Your task to perform on an android device: Open the phone app and click the voicemail tab. Image 0: 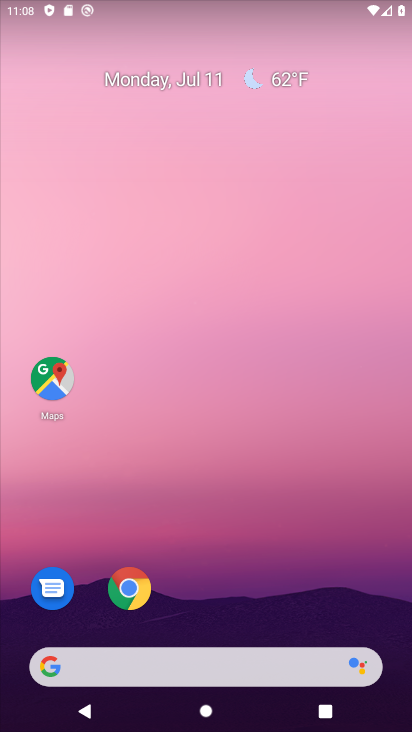
Step 0: drag from (225, 594) to (155, 285)
Your task to perform on an android device: Open the phone app and click the voicemail tab. Image 1: 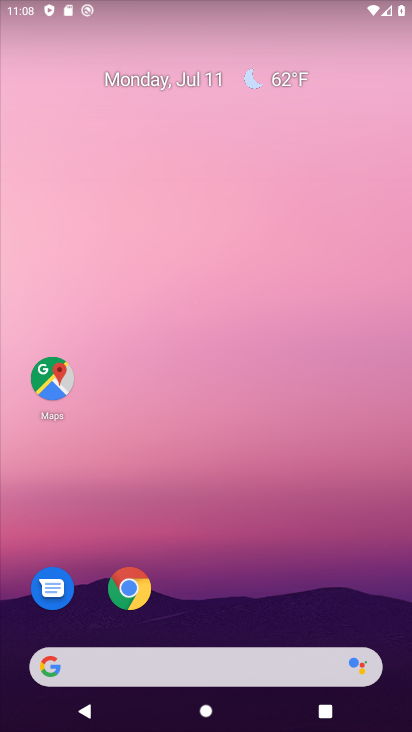
Step 1: drag from (205, 291) to (185, 144)
Your task to perform on an android device: Open the phone app and click the voicemail tab. Image 2: 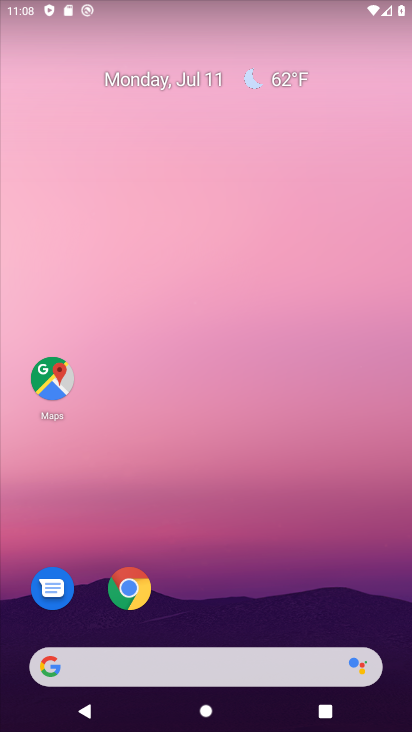
Step 2: drag from (186, 495) to (166, 69)
Your task to perform on an android device: Open the phone app and click the voicemail tab. Image 3: 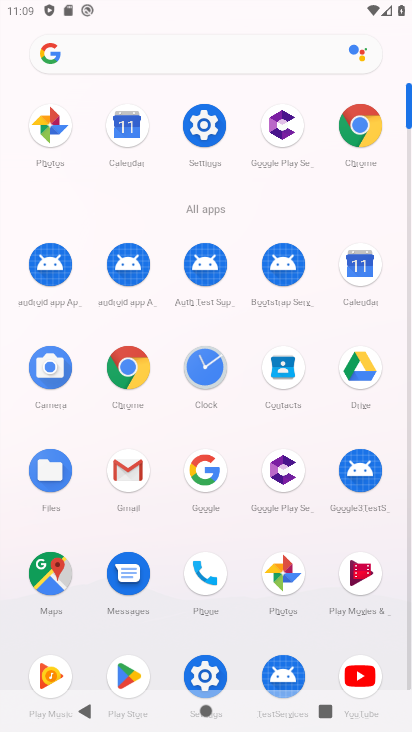
Step 3: click (213, 590)
Your task to perform on an android device: Open the phone app and click the voicemail tab. Image 4: 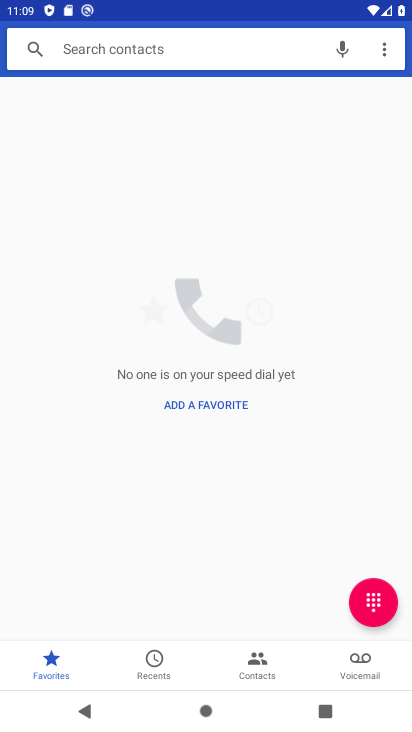
Step 4: click (363, 674)
Your task to perform on an android device: Open the phone app and click the voicemail tab. Image 5: 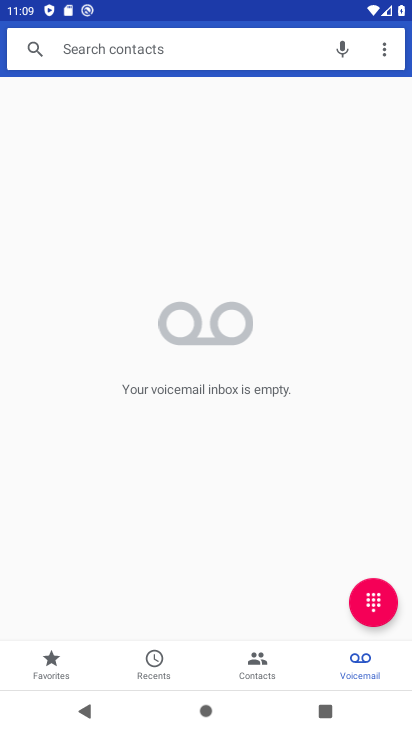
Step 5: task complete